Your task to perform on an android device: open chrome privacy settings Image 0: 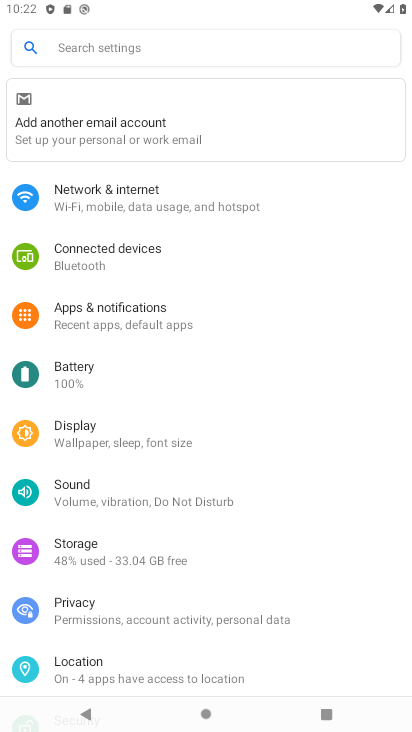
Step 0: press home button
Your task to perform on an android device: open chrome privacy settings Image 1: 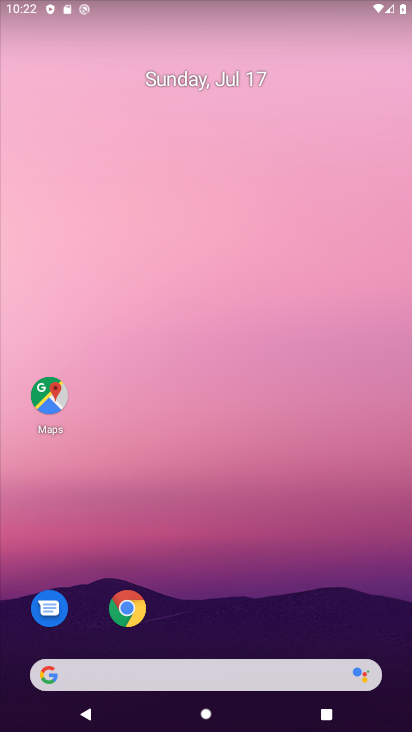
Step 1: click (133, 609)
Your task to perform on an android device: open chrome privacy settings Image 2: 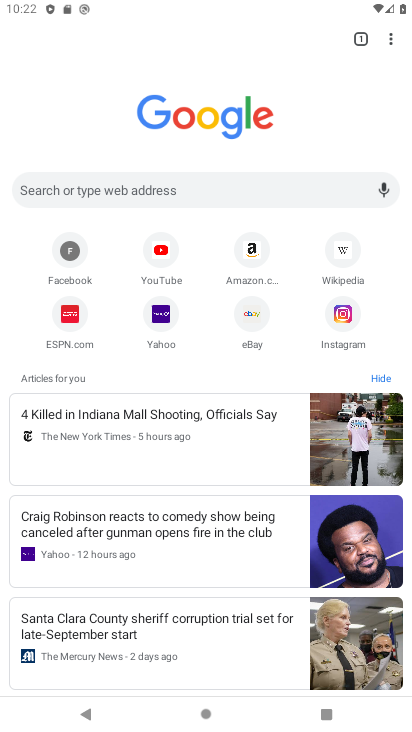
Step 2: click (391, 32)
Your task to perform on an android device: open chrome privacy settings Image 3: 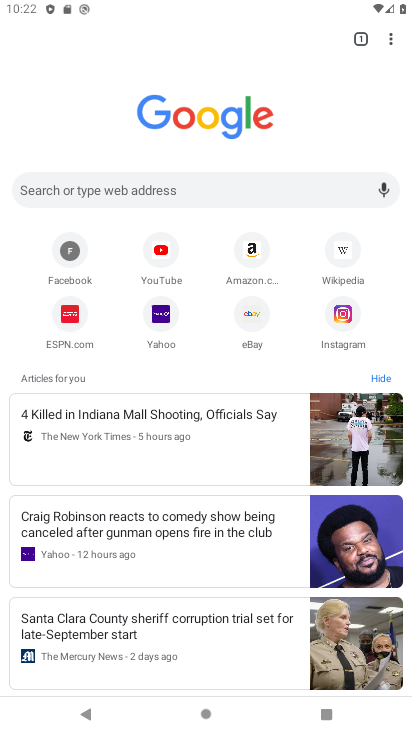
Step 3: click (395, 38)
Your task to perform on an android device: open chrome privacy settings Image 4: 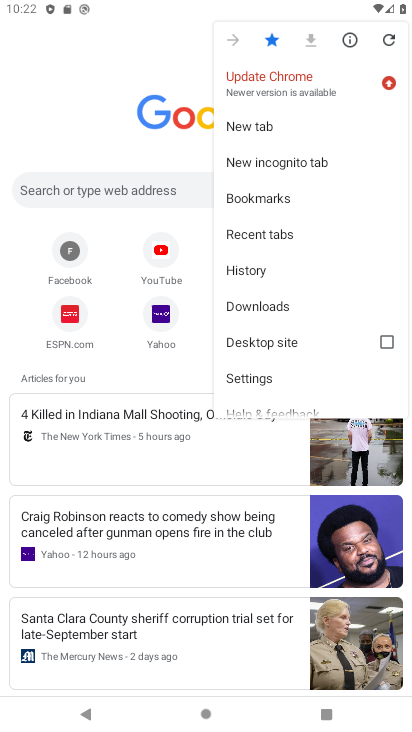
Step 4: click (247, 368)
Your task to perform on an android device: open chrome privacy settings Image 5: 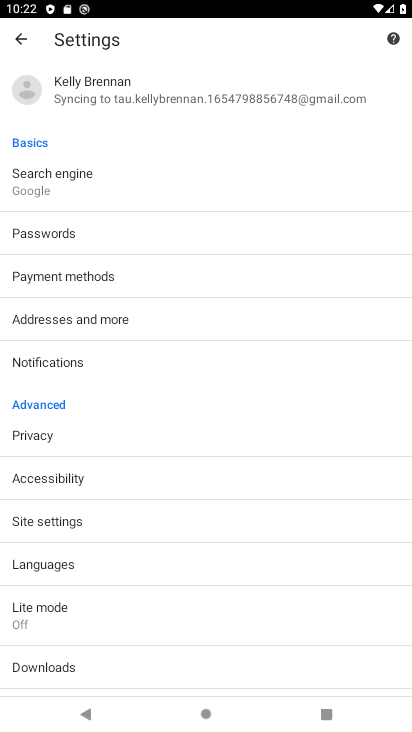
Step 5: click (30, 436)
Your task to perform on an android device: open chrome privacy settings Image 6: 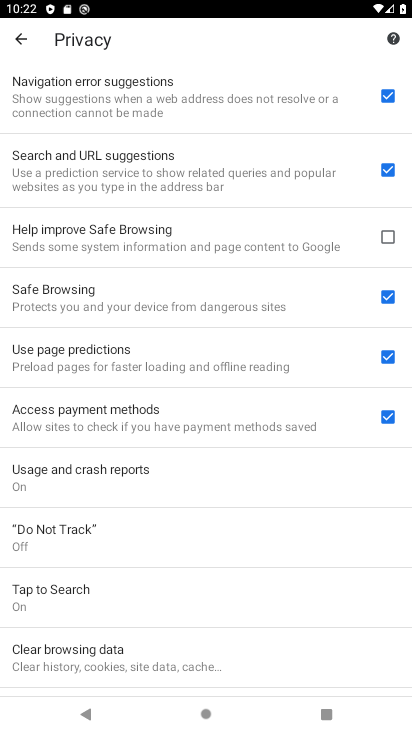
Step 6: task complete